Your task to perform on an android device: Open internet settings Image 0: 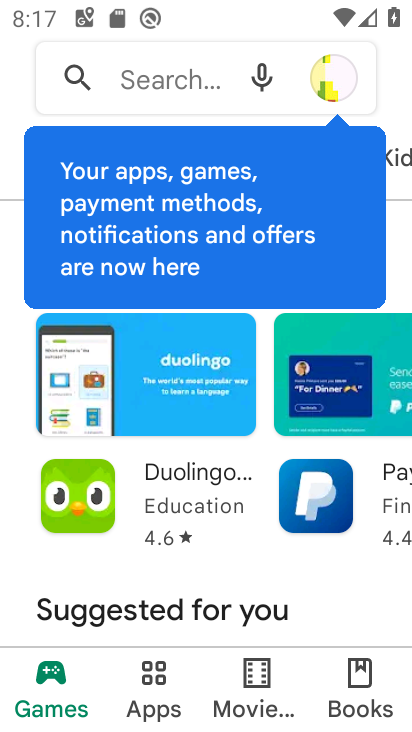
Step 0: press home button
Your task to perform on an android device: Open internet settings Image 1: 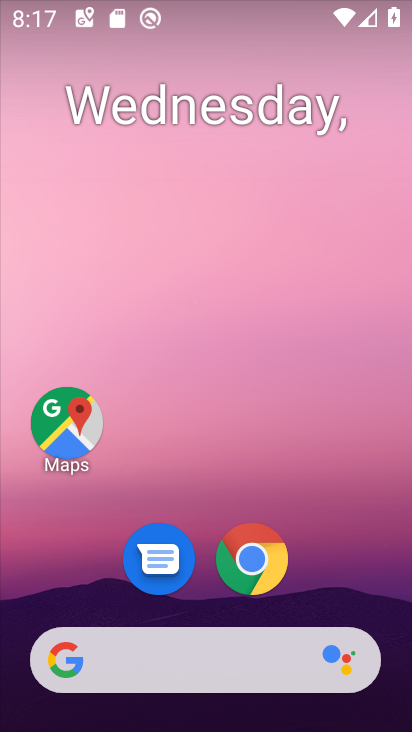
Step 1: drag from (357, 561) to (350, 147)
Your task to perform on an android device: Open internet settings Image 2: 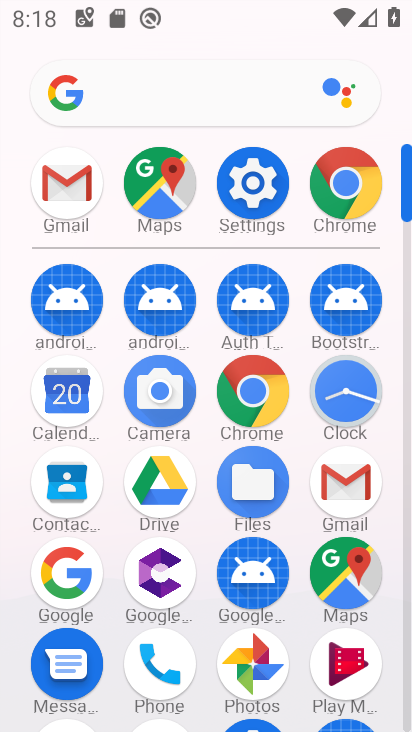
Step 2: click (260, 192)
Your task to perform on an android device: Open internet settings Image 3: 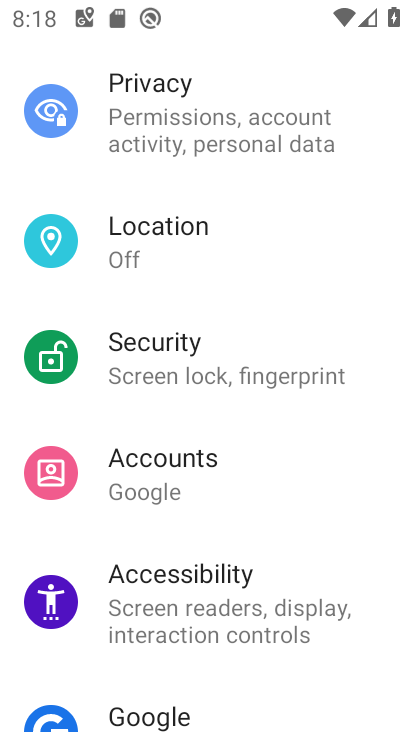
Step 3: drag from (319, 204) to (319, 568)
Your task to perform on an android device: Open internet settings Image 4: 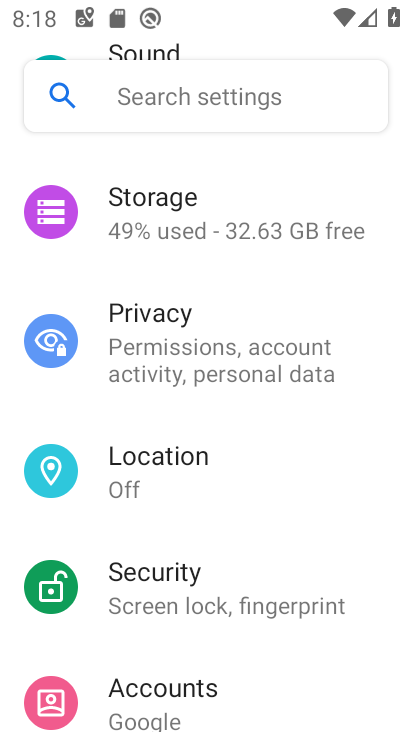
Step 4: drag from (342, 181) to (340, 603)
Your task to perform on an android device: Open internet settings Image 5: 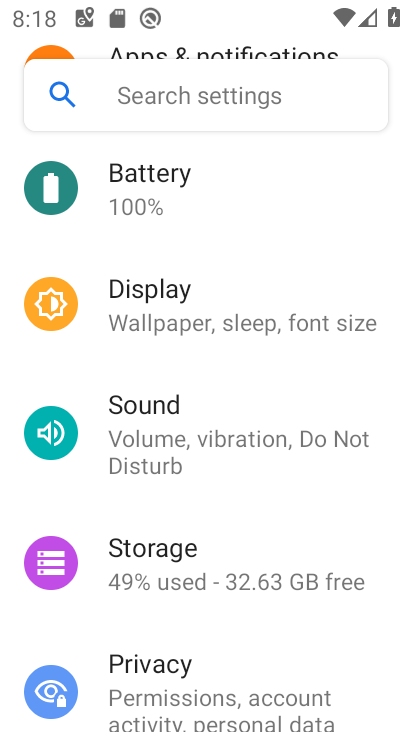
Step 5: drag from (344, 272) to (342, 608)
Your task to perform on an android device: Open internet settings Image 6: 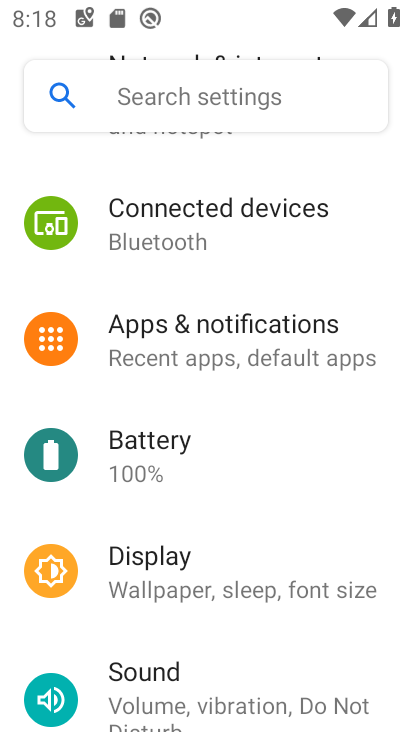
Step 6: drag from (342, 283) to (334, 564)
Your task to perform on an android device: Open internet settings Image 7: 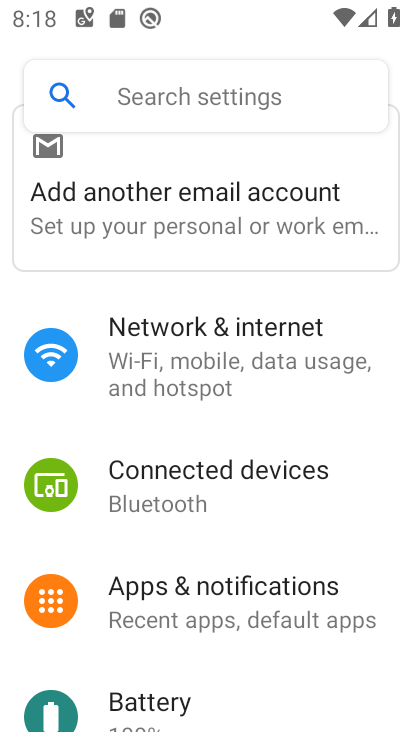
Step 7: click (276, 342)
Your task to perform on an android device: Open internet settings Image 8: 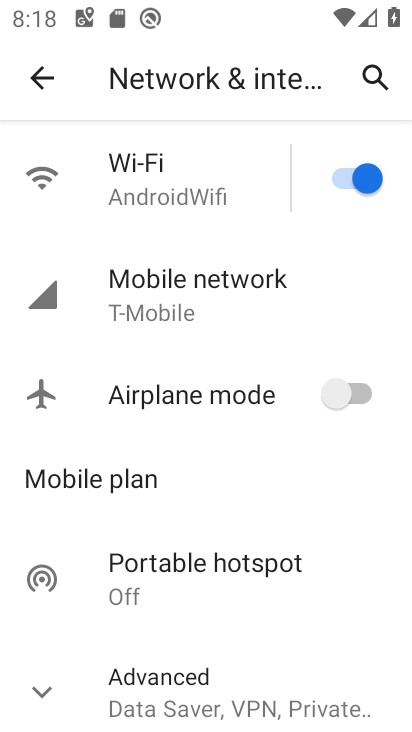
Step 8: click (264, 316)
Your task to perform on an android device: Open internet settings Image 9: 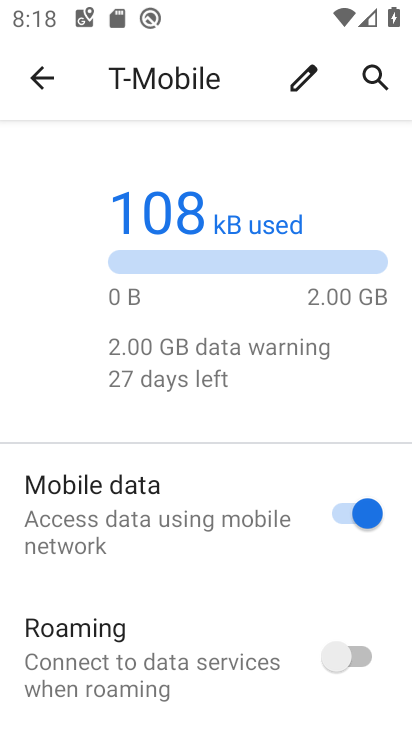
Step 9: task complete